Your task to perform on an android device: toggle sleep mode Image 0: 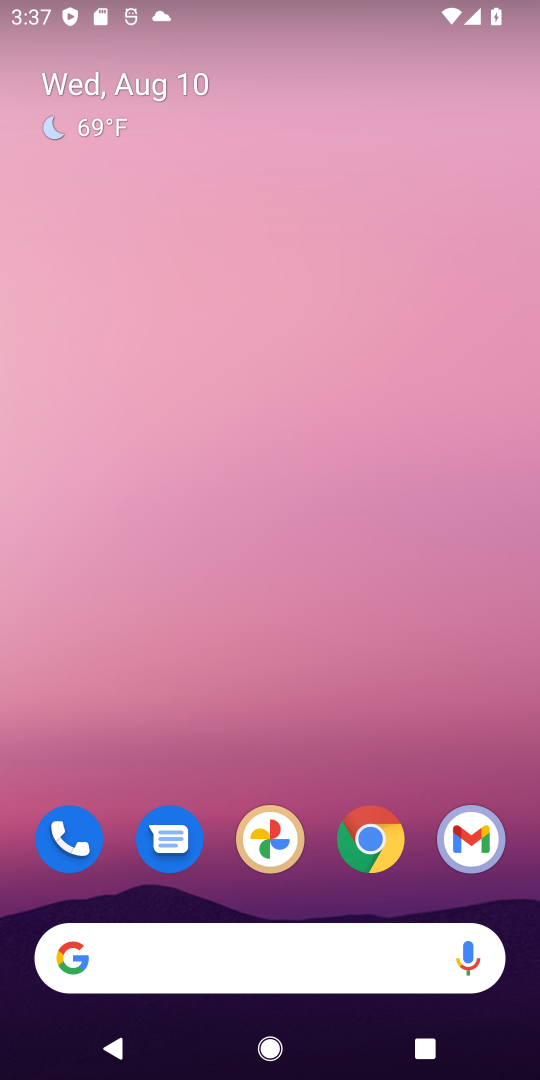
Step 0: drag from (297, 751) to (423, 0)
Your task to perform on an android device: toggle sleep mode Image 1: 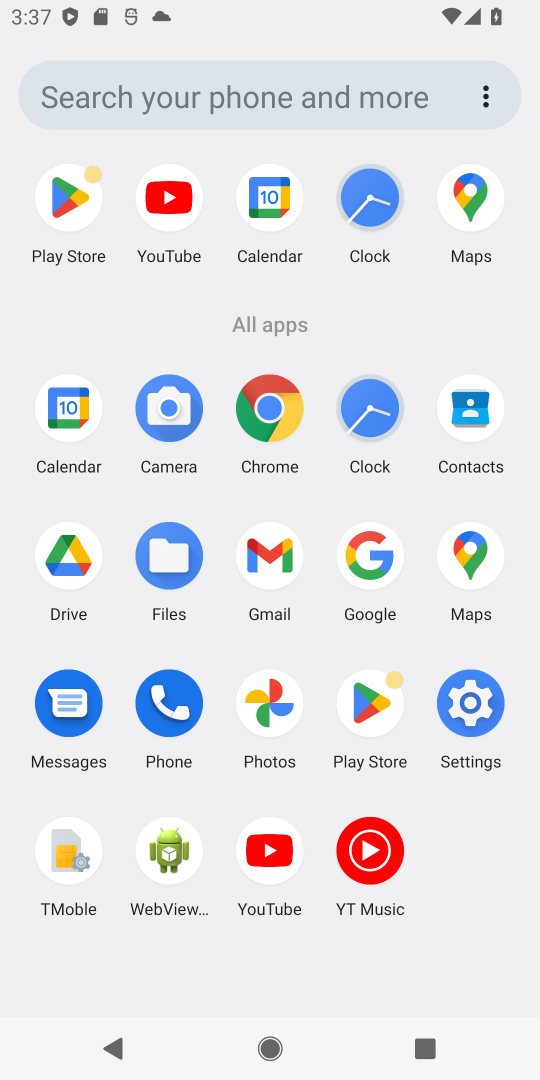
Step 1: click (461, 704)
Your task to perform on an android device: toggle sleep mode Image 2: 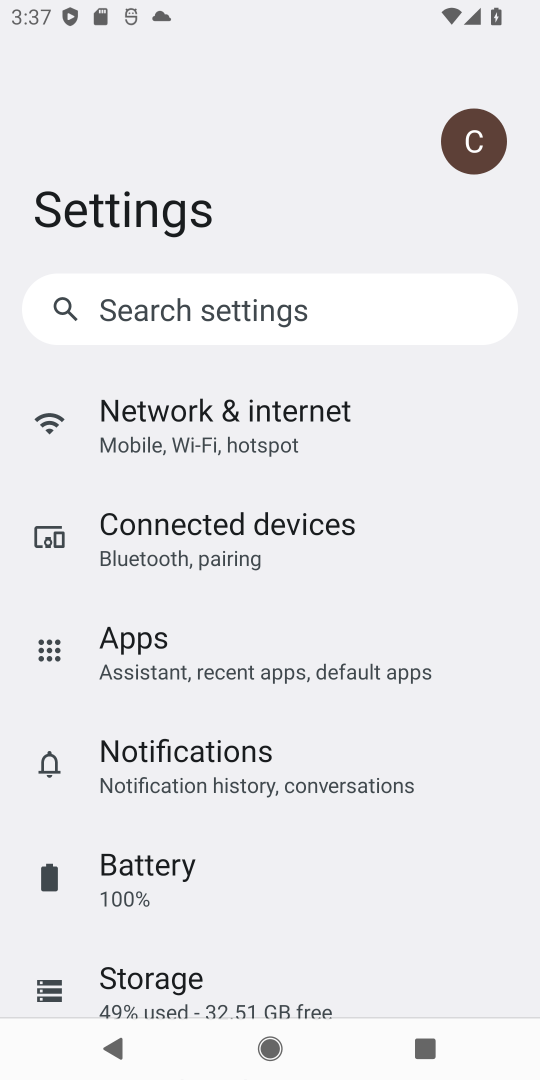
Step 2: drag from (297, 870) to (327, 263)
Your task to perform on an android device: toggle sleep mode Image 3: 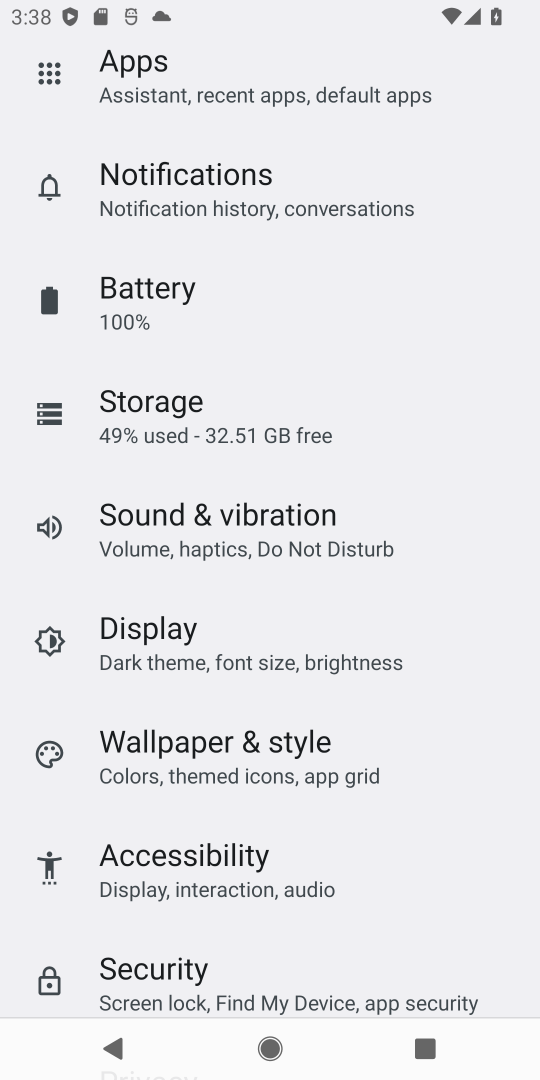
Step 3: click (325, 534)
Your task to perform on an android device: toggle sleep mode Image 4: 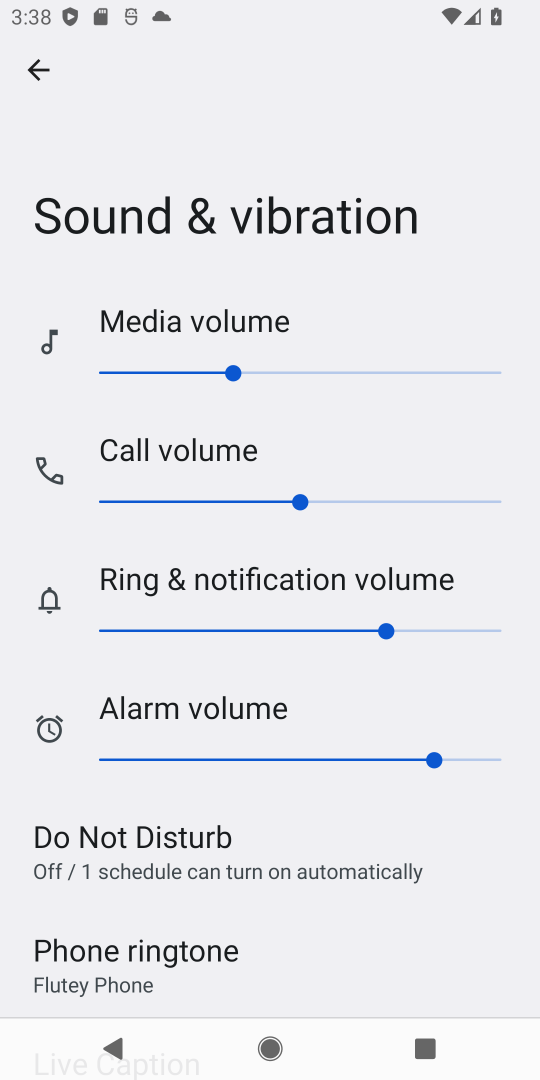
Step 4: click (30, 55)
Your task to perform on an android device: toggle sleep mode Image 5: 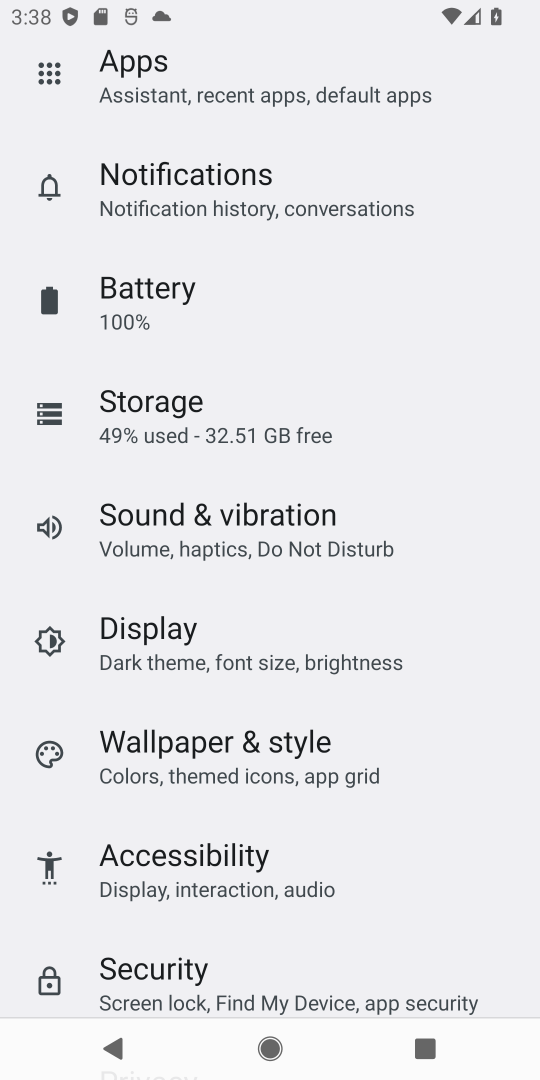
Step 5: task complete